Your task to perform on an android device: see tabs open on other devices in the chrome app Image 0: 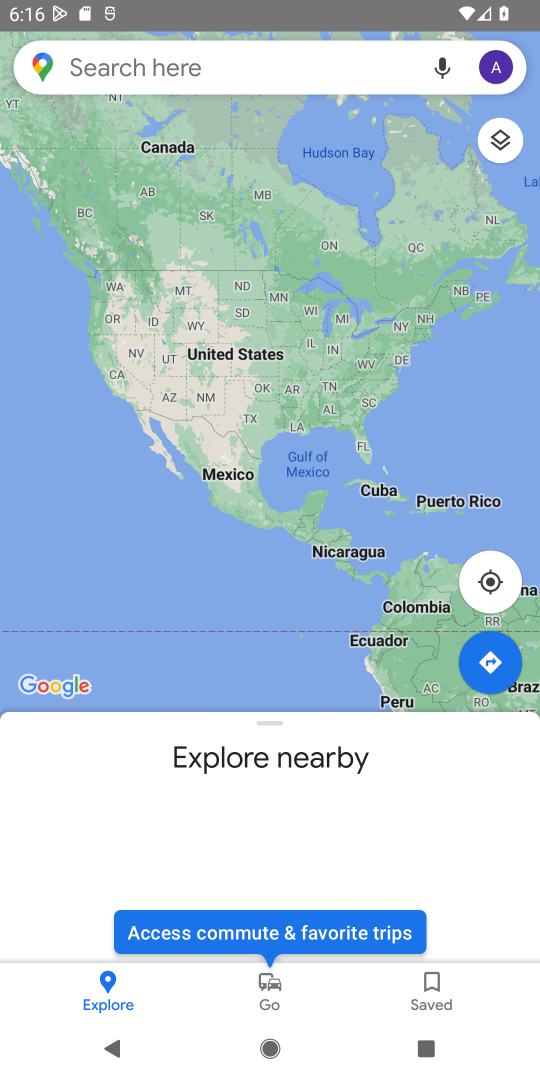
Step 0: press home button
Your task to perform on an android device: see tabs open on other devices in the chrome app Image 1: 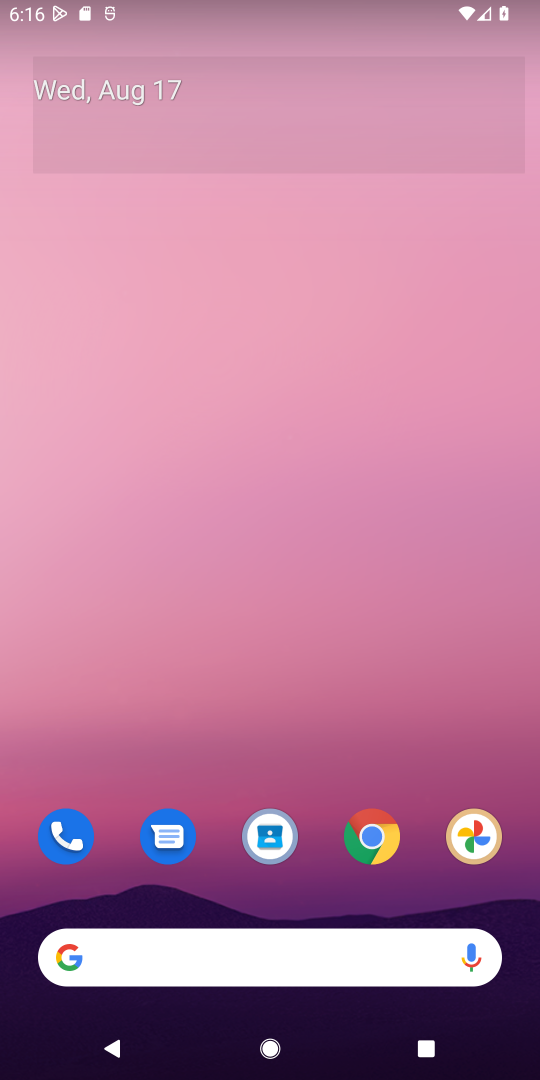
Step 1: click (376, 835)
Your task to perform on an android device: see tabs open on other devices in the chrome app Image 2: 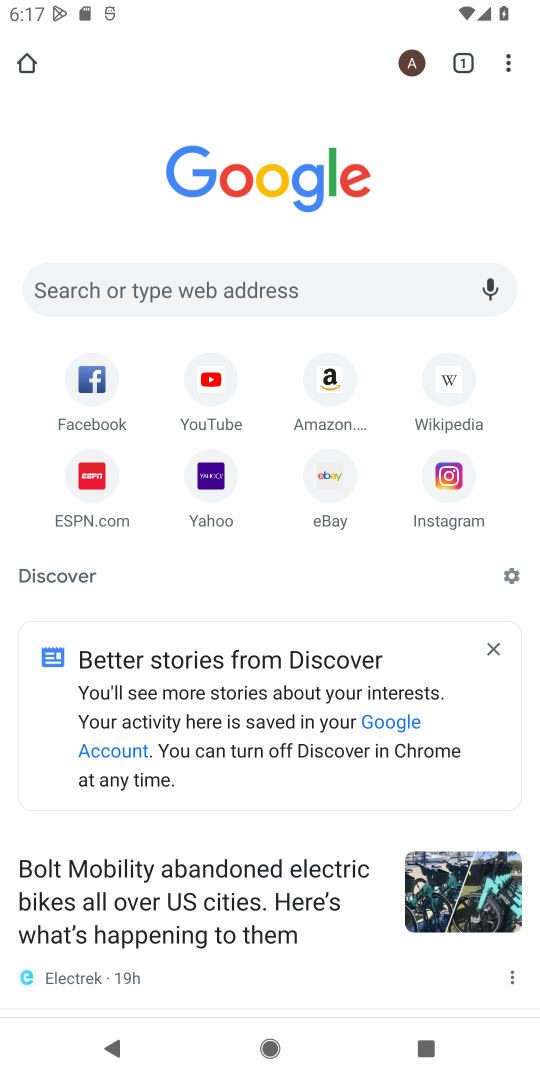
Step 2: task complete